Your task to perform on an android device: turn notification dots on Image 0: 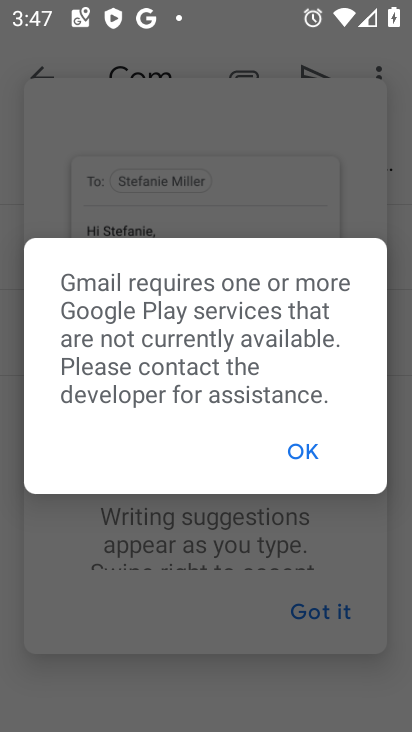
Step 0: press home button
Your task to perform on an android device: turn notification dots on Image 1: 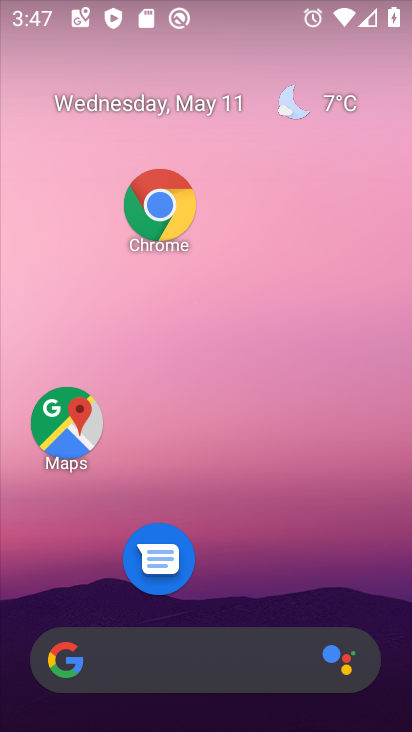
Step 1: drag from (192, 630) to (251, 207)
Your task to perform on an android device: turn notification dots on Image 2: 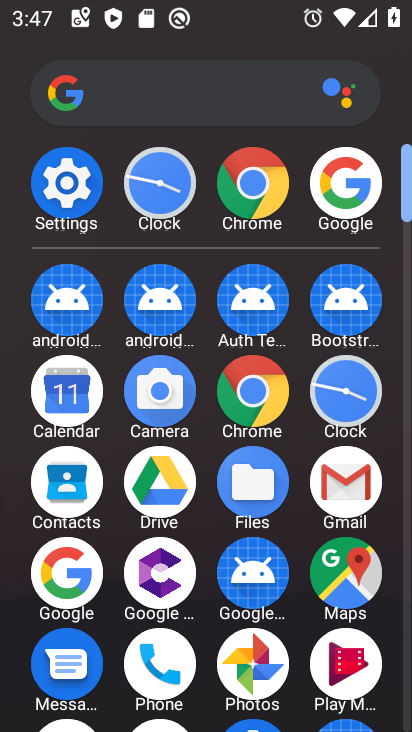
Step 2: drag from (188, 459) to (157, 275)
Your task to perform on an android device: turn notification dots on Image 3: 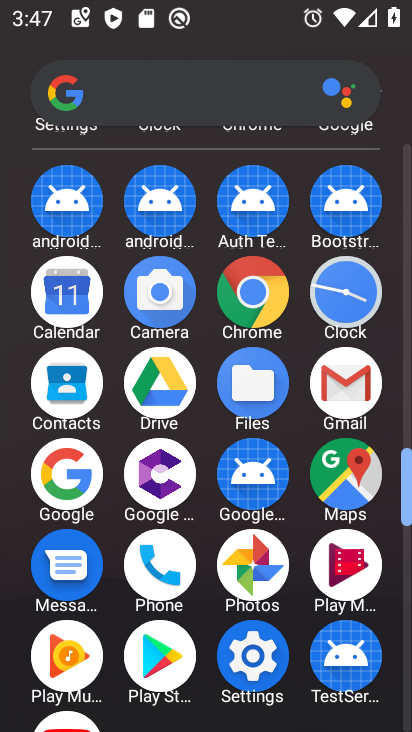
Step 3: click (256, 668)
Your task to perform on an android device: turn notification dots on Image 4: 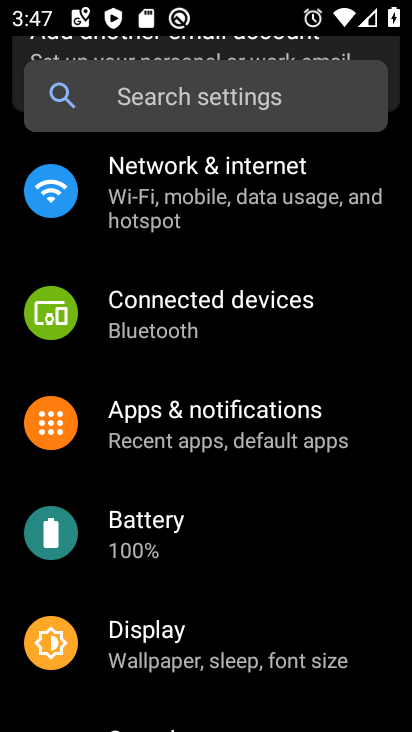
Step 4: click (218, 420)
Your task to perform on an android device: turn notification dots on Image 5: 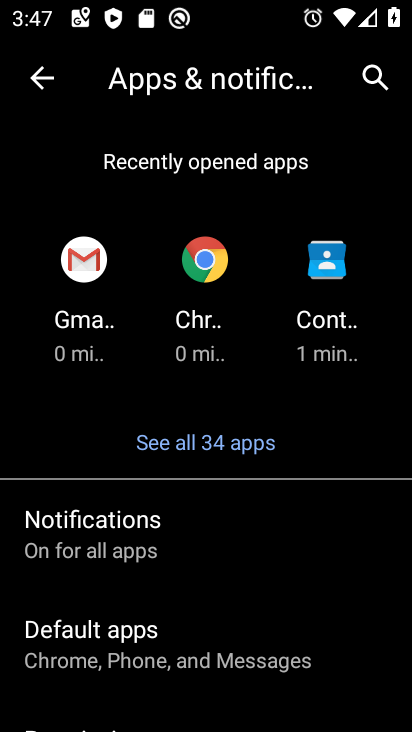
Step 5: click (126, 533)
Your task to perform on an android device: turn notification dots on Image 6: 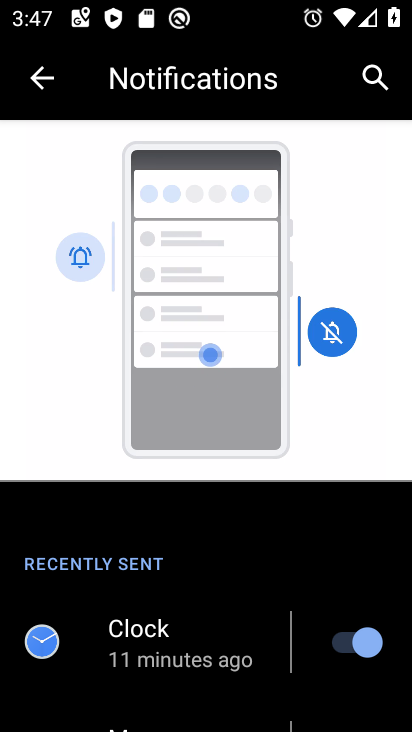
Step 6: drag from (217, 665) to (169, 306)
Your task to perform on an android device: turn notification dots on Image 7: 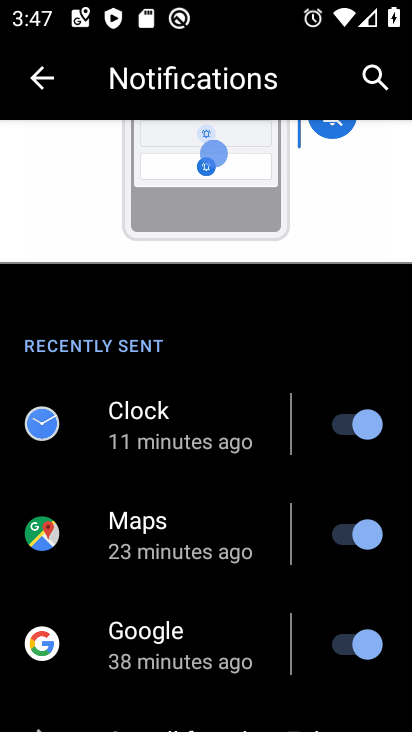
Step 7: drag from (217, 686) to (188, 285)
Your task to perform on an android device: turn notification dots on Image 8: 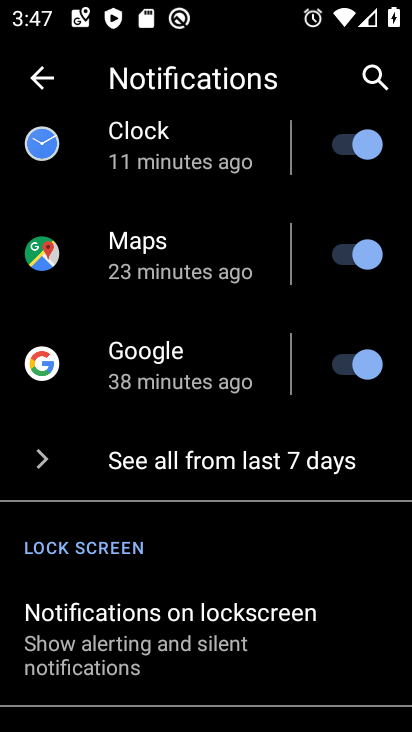
Step 8: drag from (222, 680) to (149, 266)
Your task to perform on an android device: turn notification dots on Image 9: 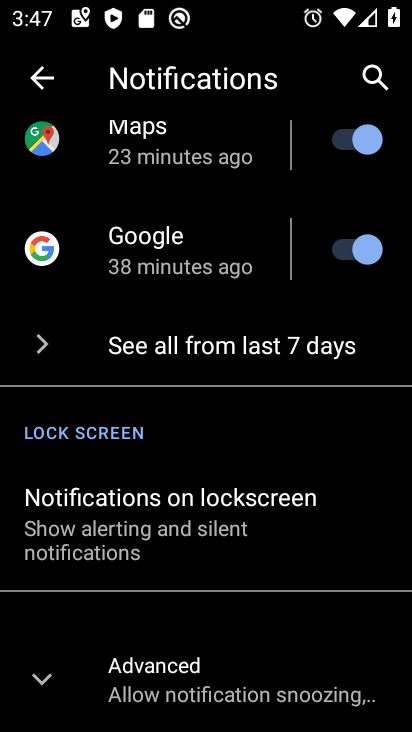
Step 9: click (196, 680)
Your task to perform on an android device: turn notification dots on Image 10: 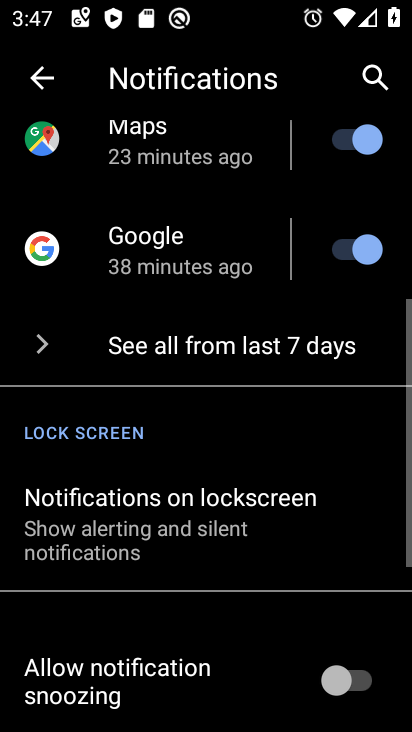
Step 10: drag from (258, 715) to (227, 365)
Your task to perform on an android device: turn notification dots on Image 11: 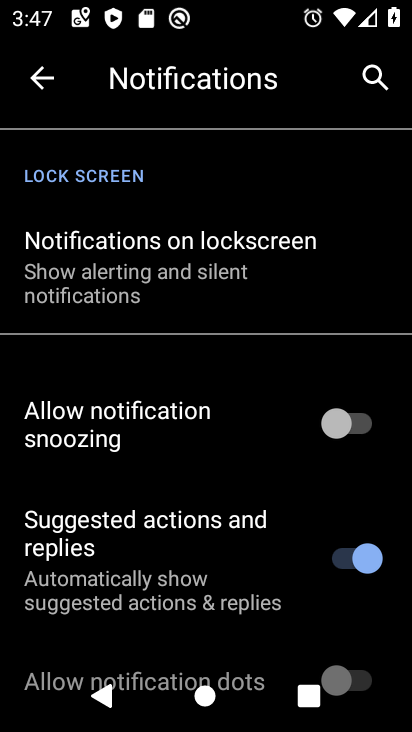
Step 11: drag from (181, 653) to (185, 366)
Your task to perform on an android device: turn notification dots on Image 12: 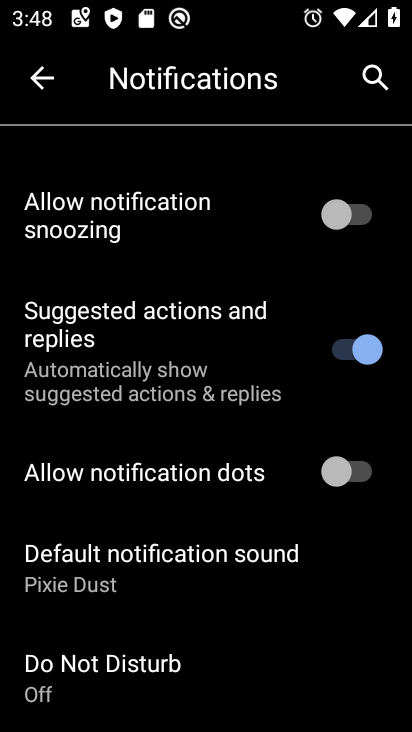
Step 12: click (361, 465)
Your task to perform on an android device: turn notification dots on Image 13: 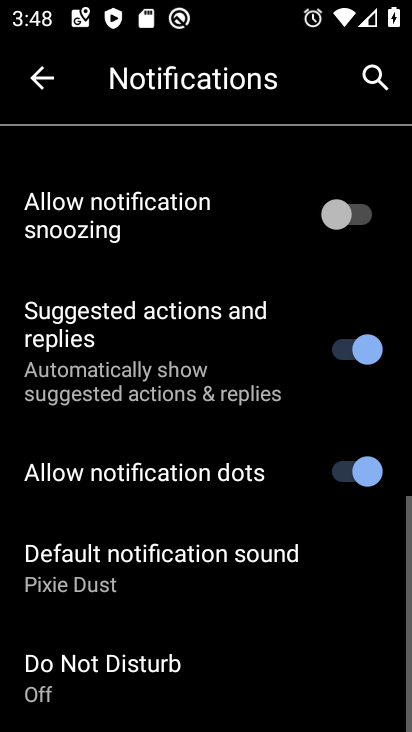
Step 13: task complete